Your task to perform on an android device: Open Amazon Image 0: 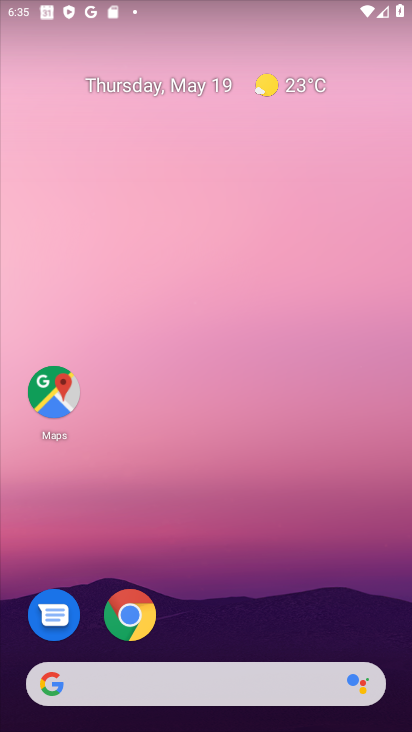
Step 0: drag from (315, 618) to (281, 31)
Your task to perform on an android device: Open Amazon Image 1: 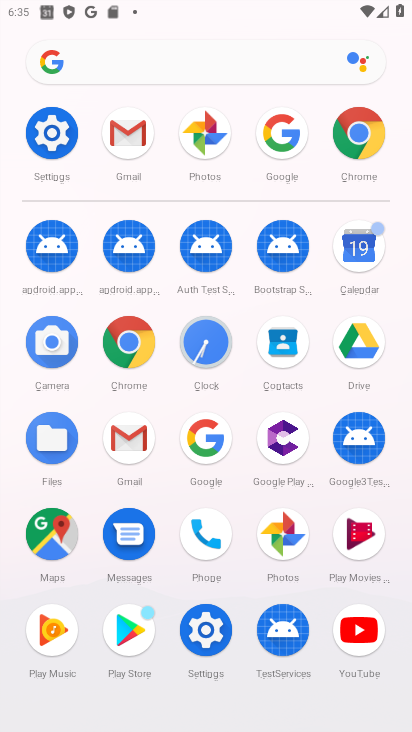
Step 1: click (270, 149)
Your task to perform on an android device: Open Amazon Image 2: 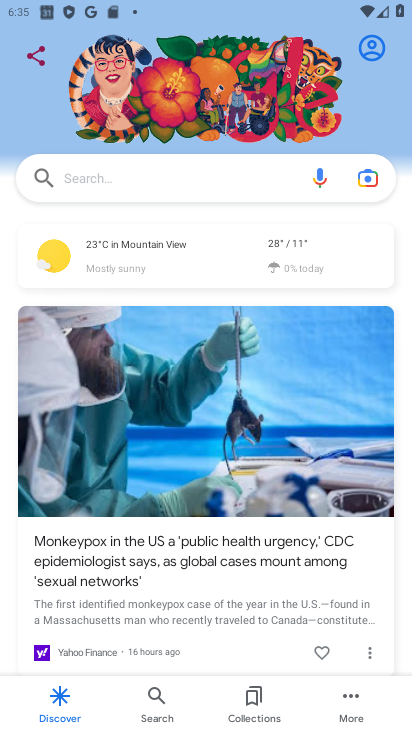
Step 2: click (166, 184)
Your task to perform on an android device: Open Amazon Image 3: 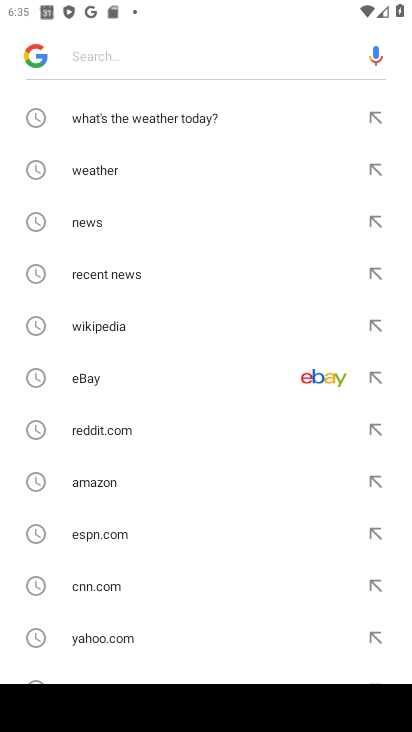
Step 3: click (136, 483)
Your task to perform on an android device: Open Amazon Image 4: 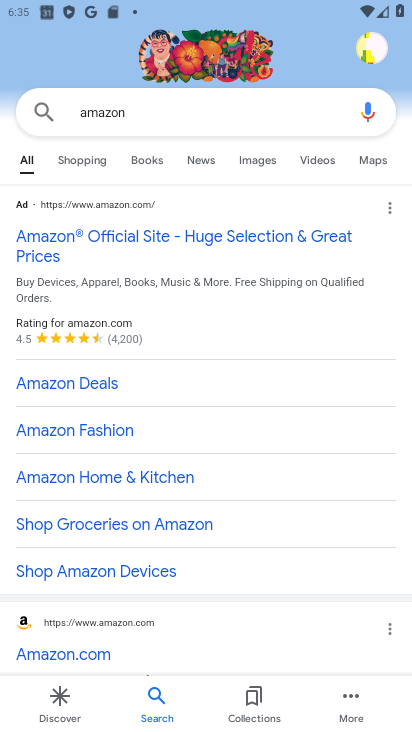
Step 4: task complete